Your task to perform on an android device: toggle data saver in the chrome app Image 0: 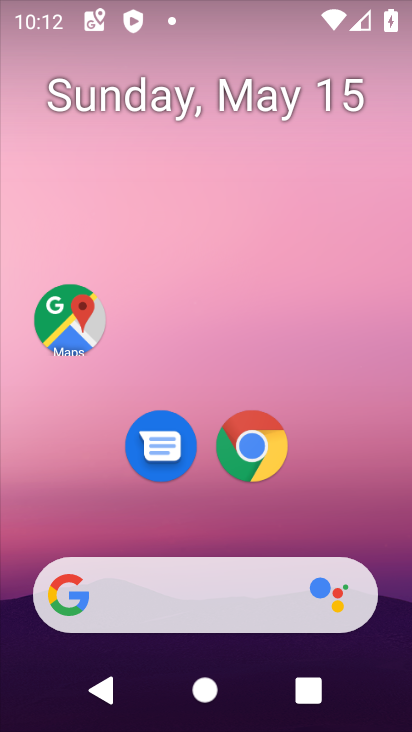
Step 0: click (250, 449)
Your task to perform on an android device: toggle data saver in the chrome app Image 1: 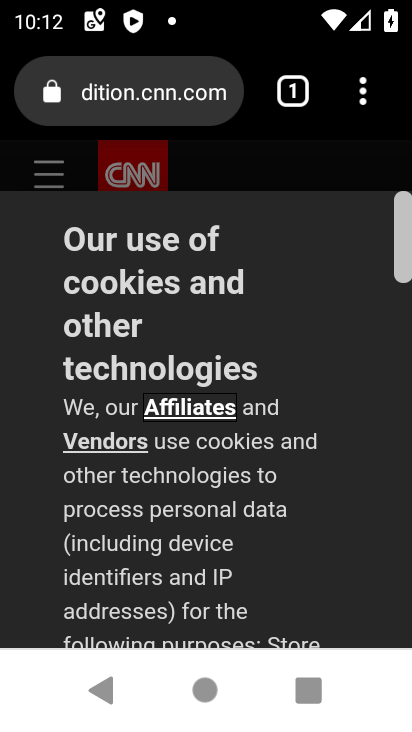
Step 1: press home button
Your task to perform on an android device: toggle data saver in the chrome app Image 2: 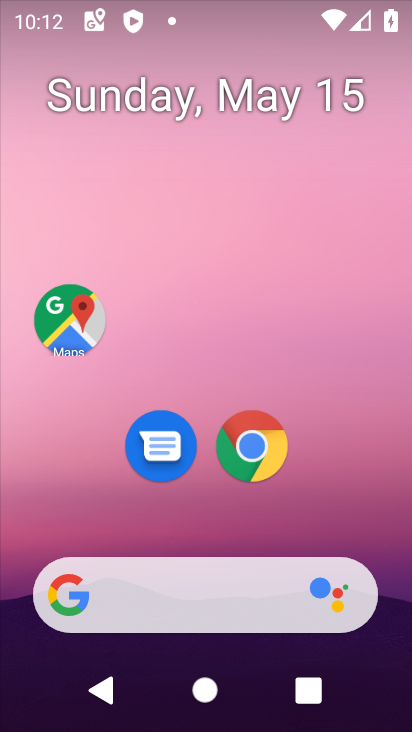
Step 2: click (246, 456)
Your task to perform on an android device: toggle data saver in the chrome app Image 3: 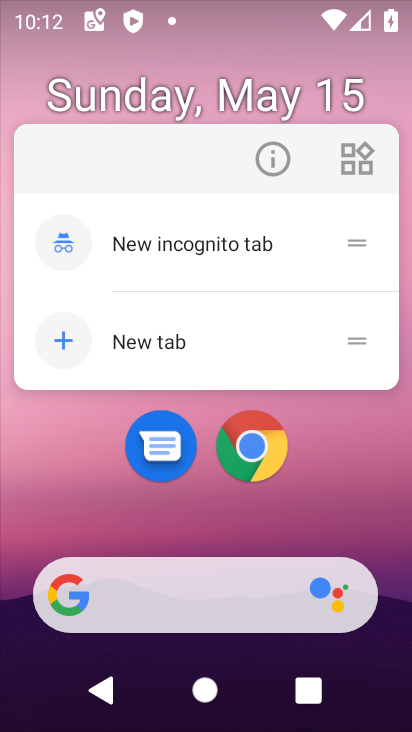
Step 3: click (269, 460)
Your task to perform on an android device: toggle data saver in the chrome app Image 4: 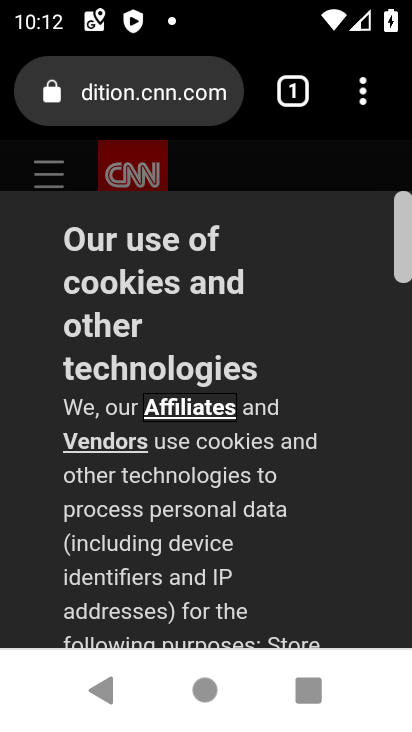
Step 4: drag from (351, 93) to (199, 491)
Your task to perform on an android device: toggle data saver in the chrome app Image 5: 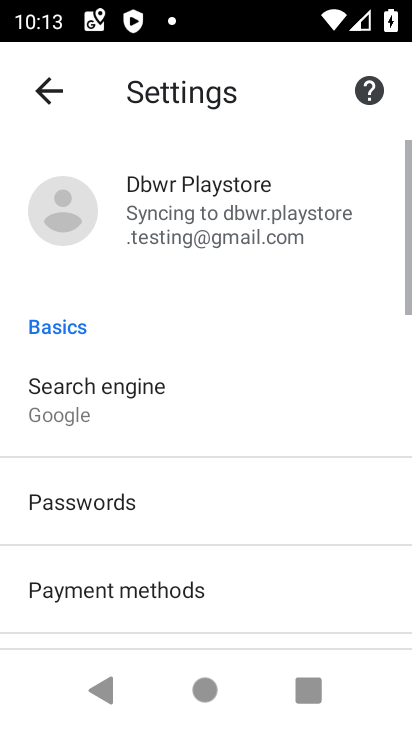
Step 5: drag from (220, 550) to (198, 176)
Your task to perform on an android device: toggle data saver in the chrome app Image 6: 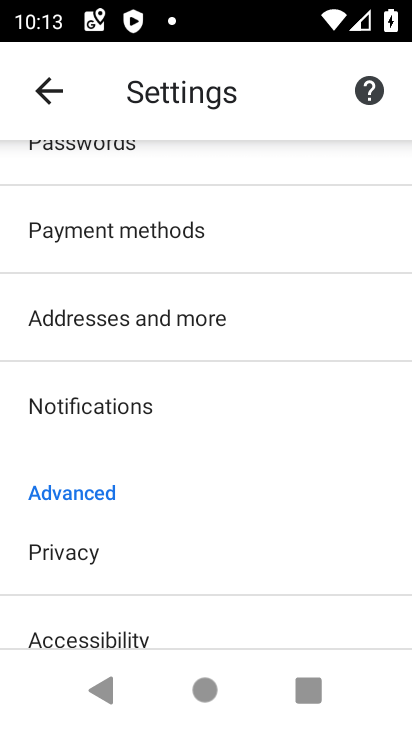
Step 6: drag from (160, 605) to (190, 192)
Your task to perform on an android device: toggle data saver in the chrome app Image 7: 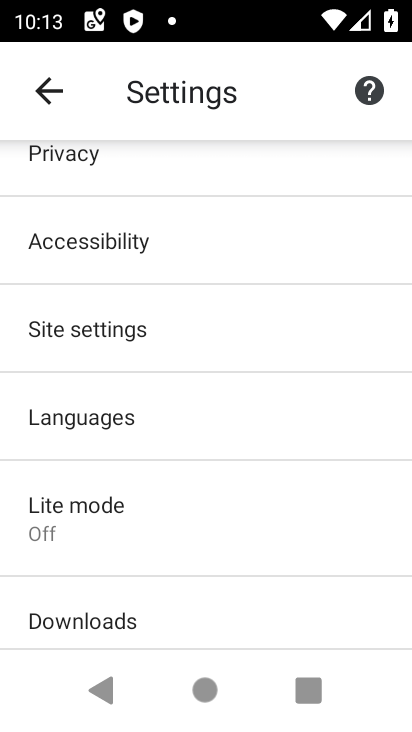
Step 7: click (77, 519)
Your task to perform on an android device: toggle data saver in the chrome app Image 8: 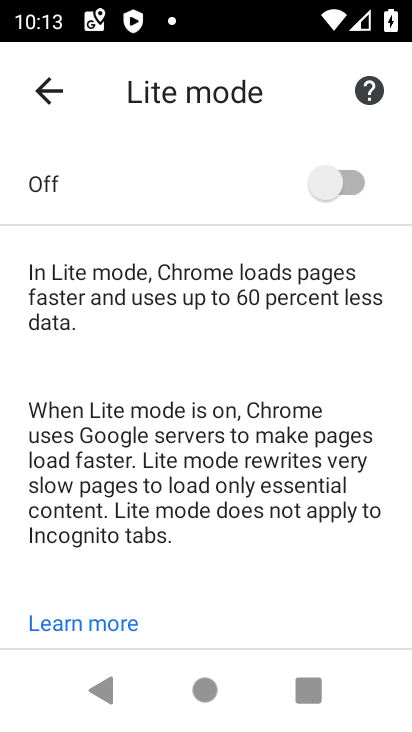
Step 8: click (343, 200)
Your task to perform on an android device: toggle data saver in the chrome app Image 9: 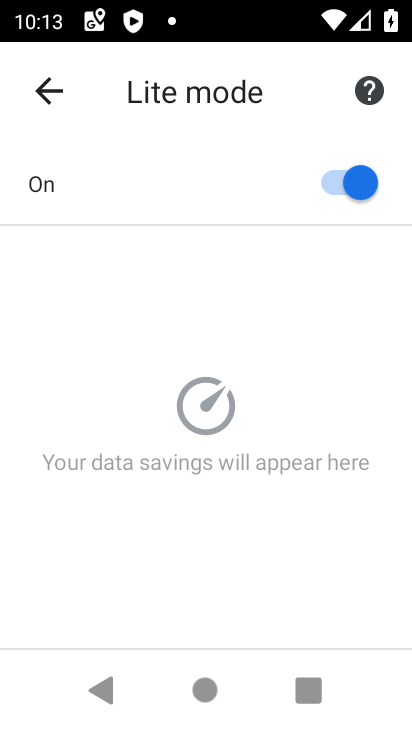
Step 9: task complete